Your task to perform on an android device: Empty the shopping cart on costco. Image 0: 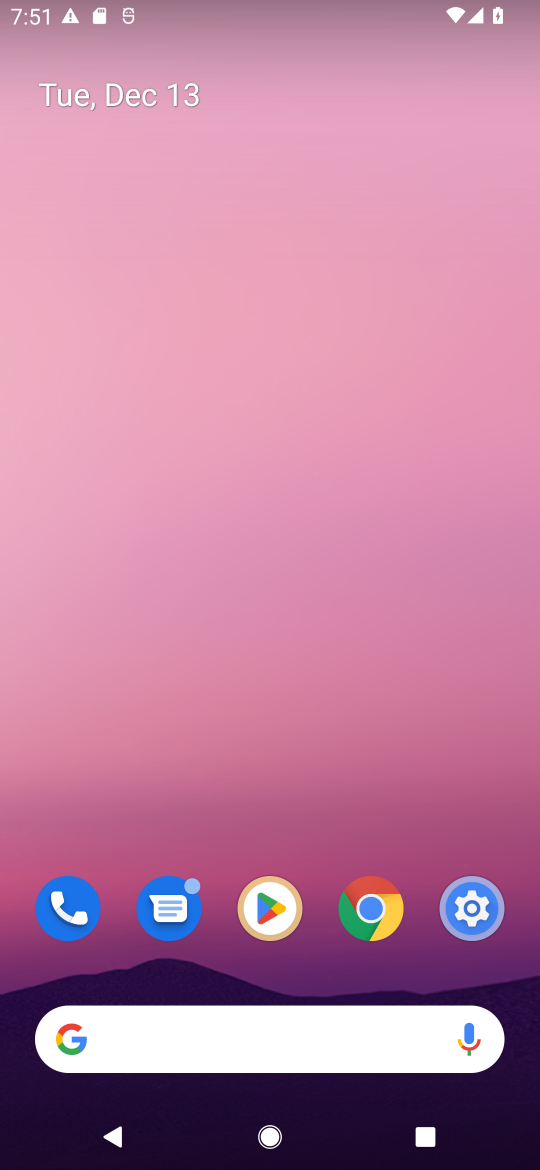
Step 0: click (98, 1041)
Your task to perform on an android device: Empty the shopping cart on costco. Image 1: 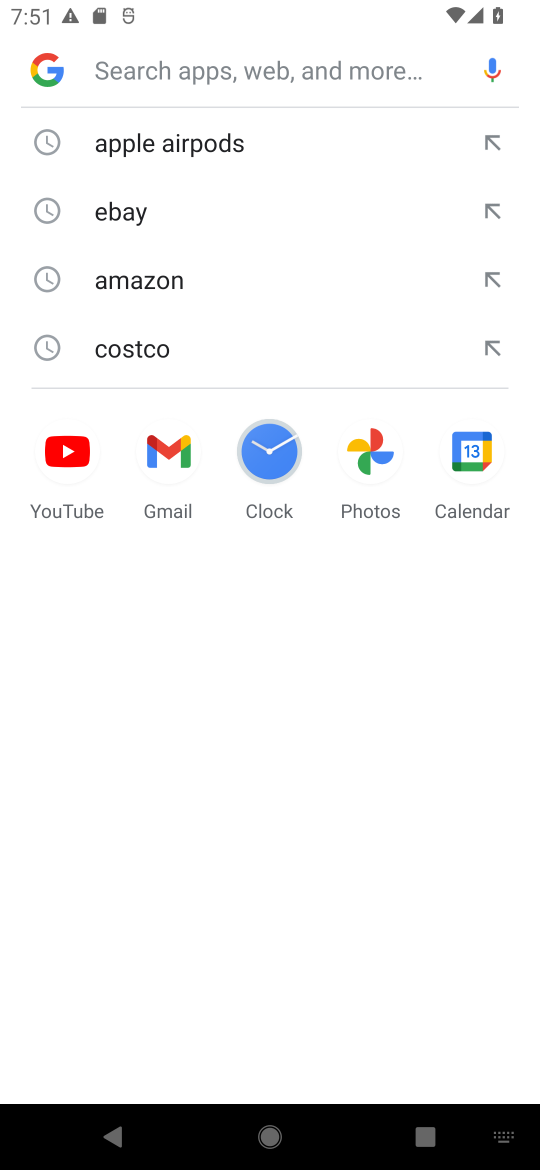
Step 1: type "costco"
Your task to perform on an android device: Empty the shopping cart on costco. Image 2: 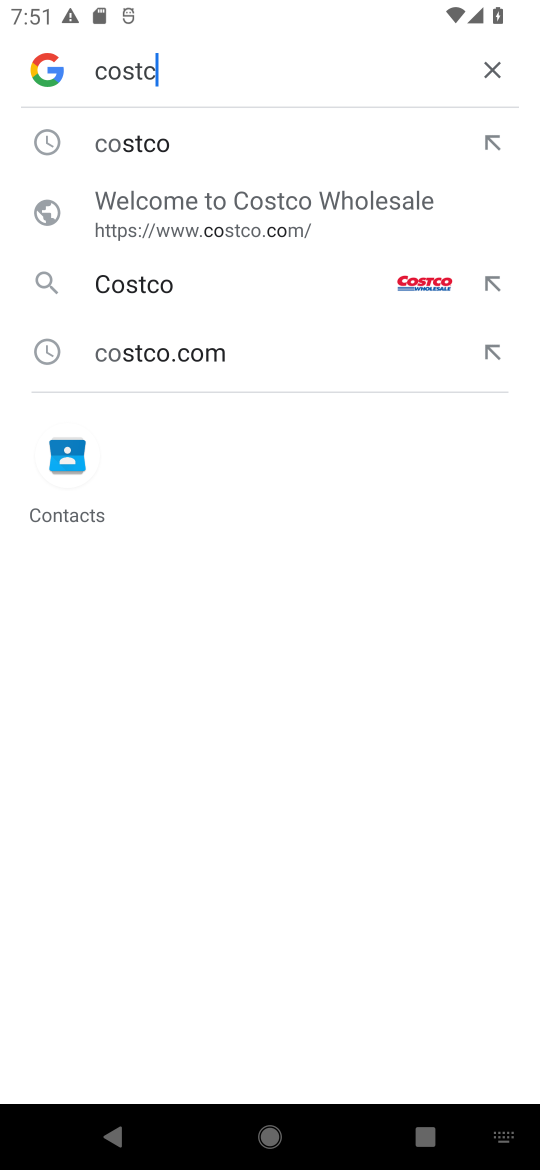
Step 2: press enter
Your task to perform on an android device: Empty the shopping cart on costco. Image 3: 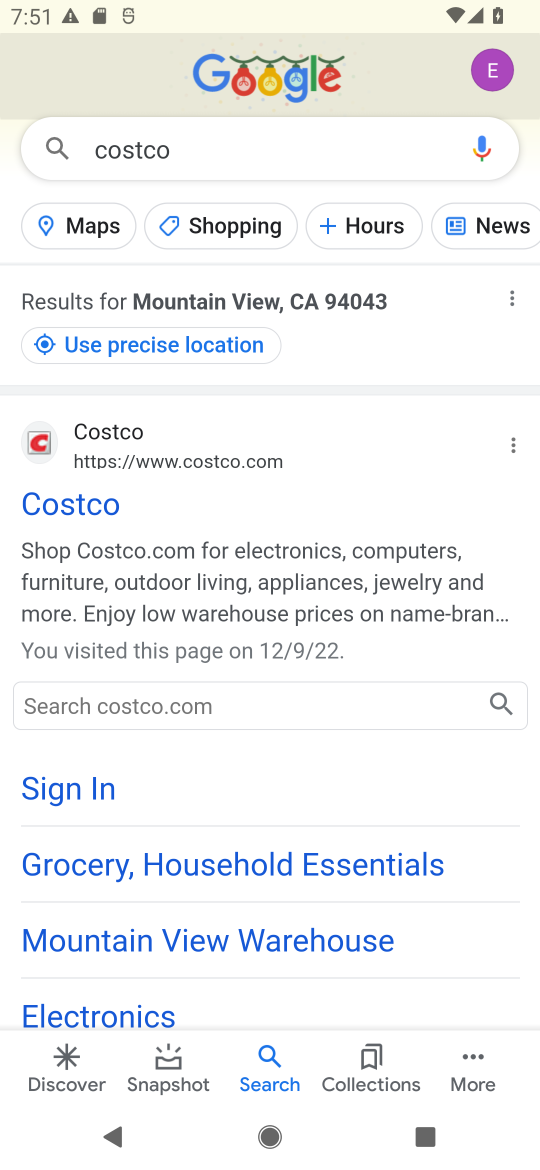
Step 3: click (36, 499)
Your task to perform on an android device: Empty the shopping cart on costco. Image 4: 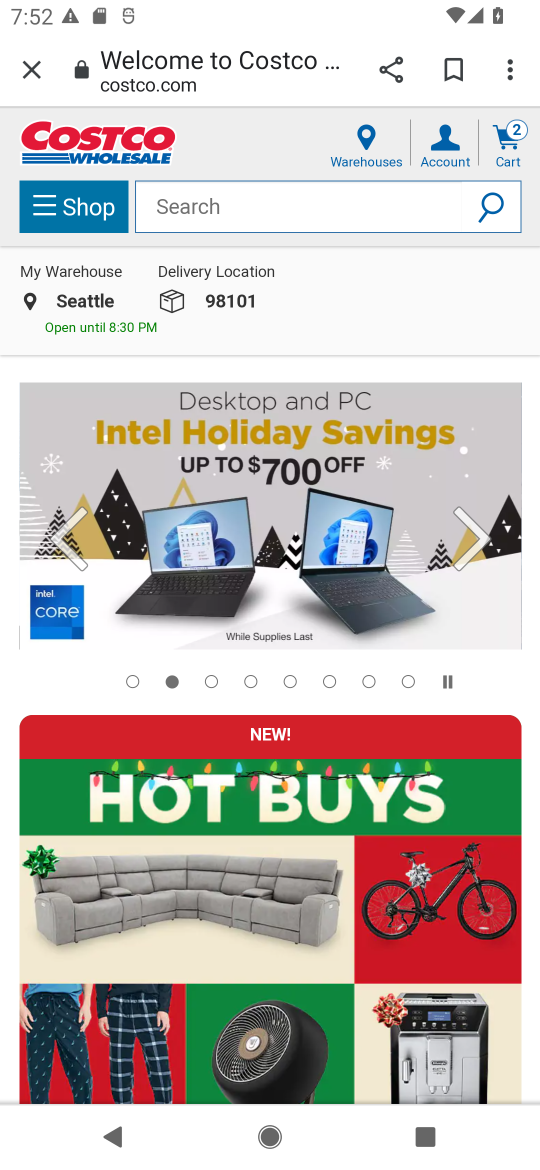
Step 4: click (508, 139)
Your task to perform on an android device: Empty the shopping cart on costco. Image 5: 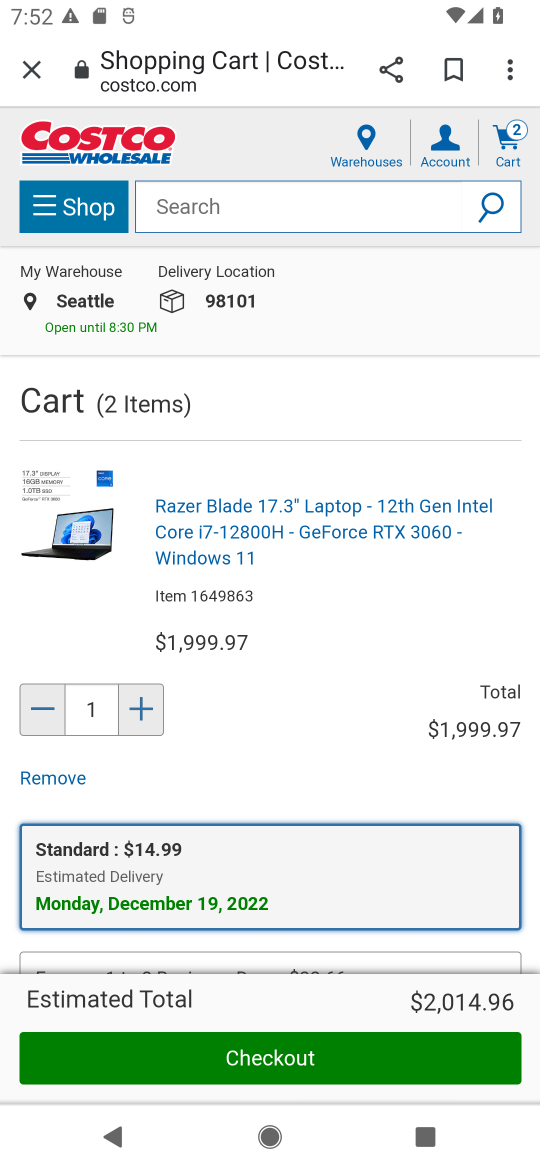
Step 5: click (46, 768)
Your task to perform on an android device: Empty the shopping cart on costco. Image 6: 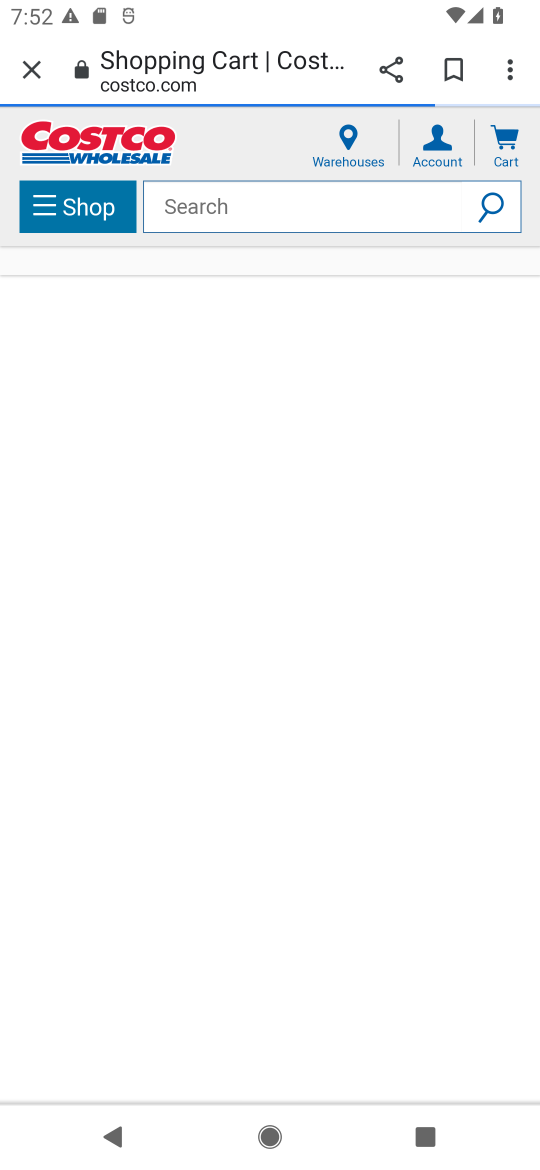
Step 6: click (50, 774)
Your task to perform on an android device: Empty the shopping cart on costco. Image 7: 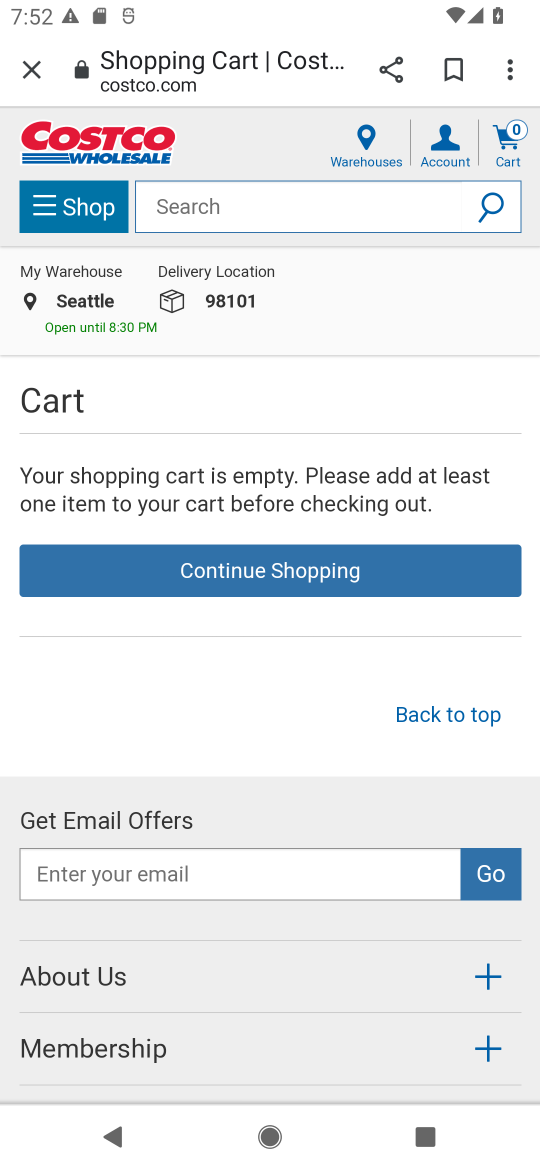
Step 7: task complete